Your task to perform on an android device: Go to Google Image 0: 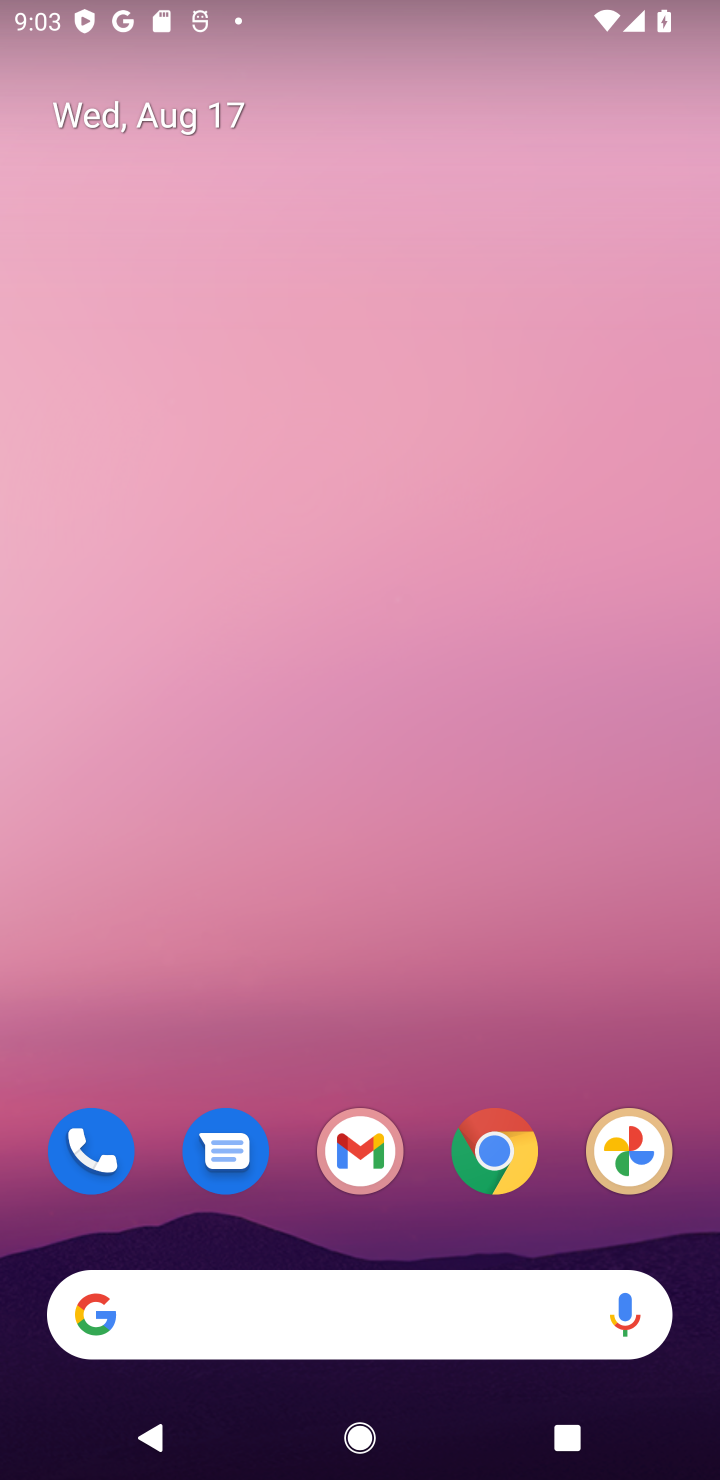
Step 0: click (414, 1315)
Your task to perform on an android device: Go to Google Image 1: 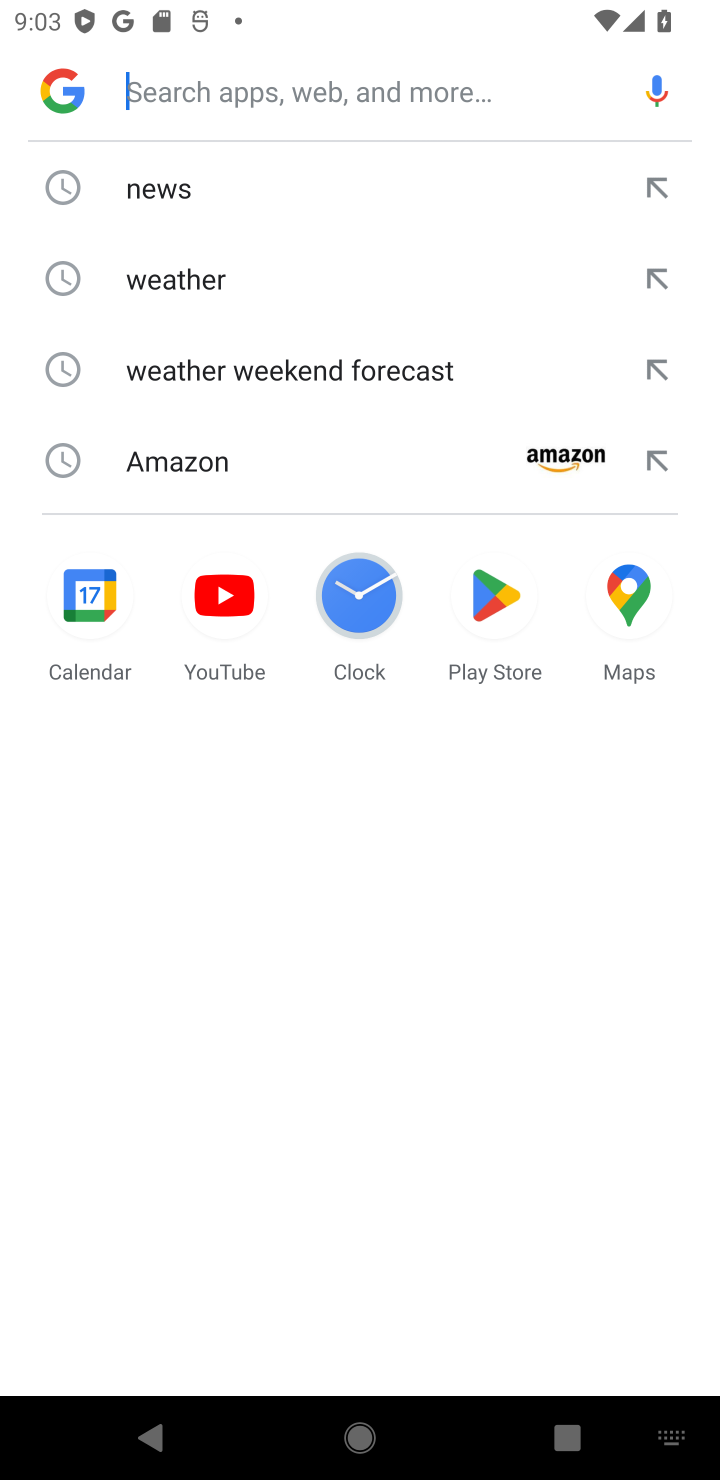
Step 1: task complete